Your task to perform on an android device: Go to display settings Image 0: 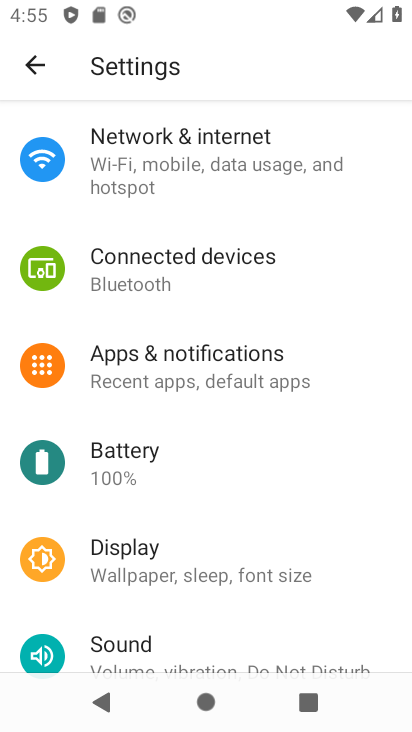
Step 0: press home button
Your task to perform on an android device: Go to display settings Image 1: 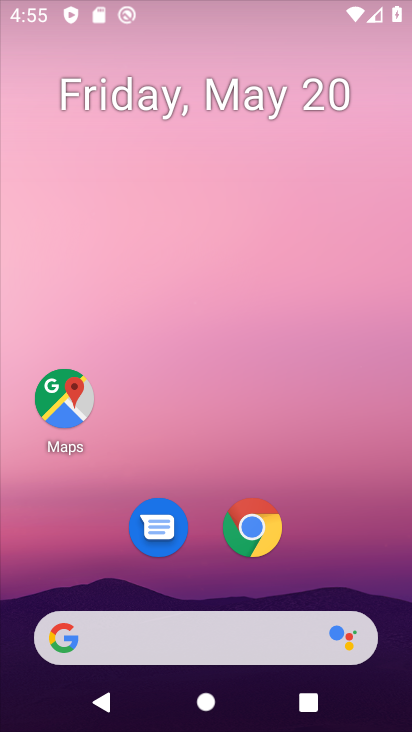
Step 1: drag from (286, 636) to (330, 141)
Your task to perform on an android device: Go to display settings Image 2: 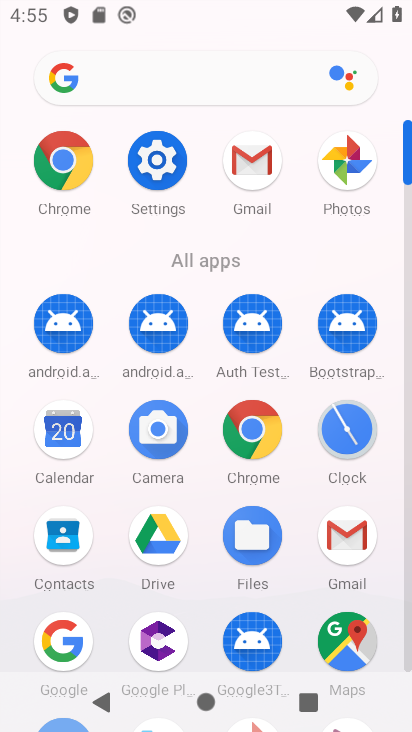
Step 2: click (176, 155)
Your task to perform on an android device: Go to display settings Image 3: 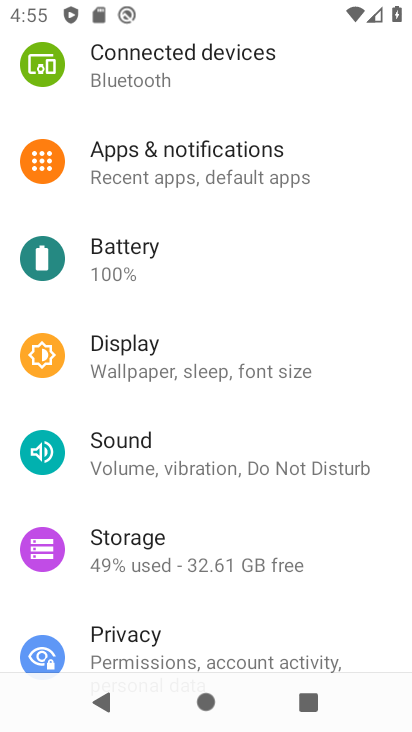
Step 3: click (187, 375)
Your task to perform on an android device: Go to display settings Image 4: 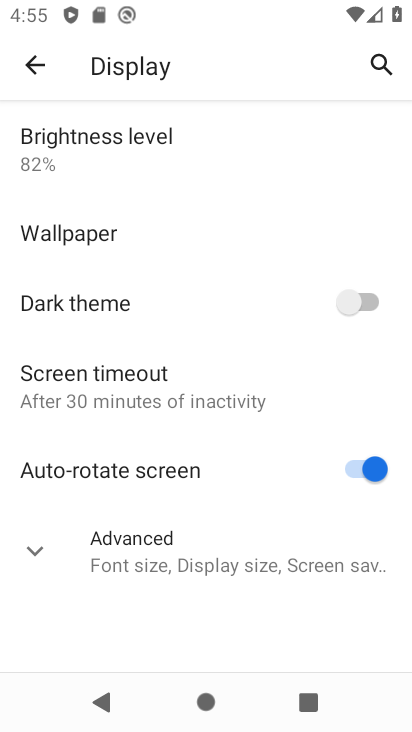
Step 4: task complete